Your task to perform on an android device: check out phone information Image 0: 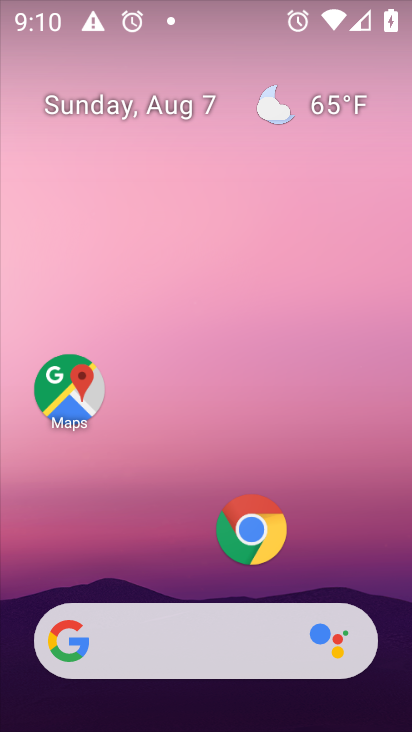
Step 0: drag from (134, 570) to (147, 0)
Your task to perform on an android device: check out phone information Image 1: 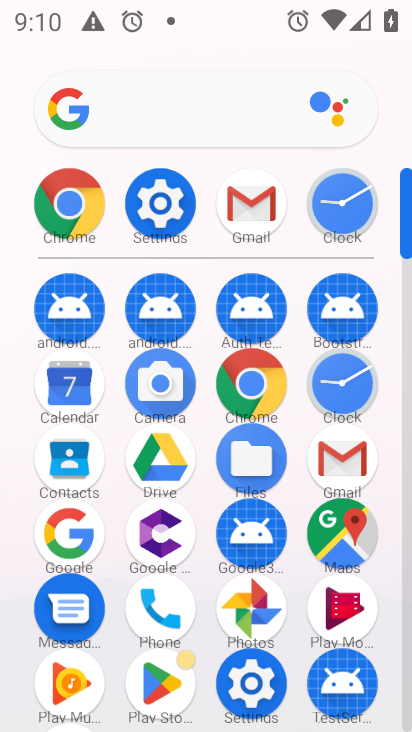
Step 1: click (166, 214)
Your task to perform on an android device: check out phone information Image 2: 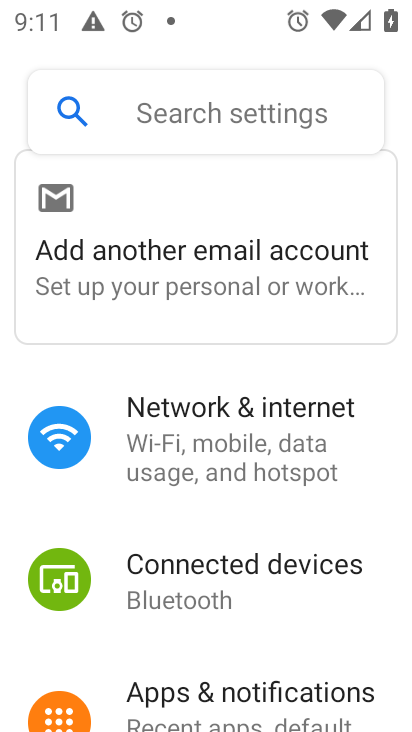
Step 2: drag from (231, 559) to (227, 399)
Your task to perform on an android device: check out phone information Image 3: 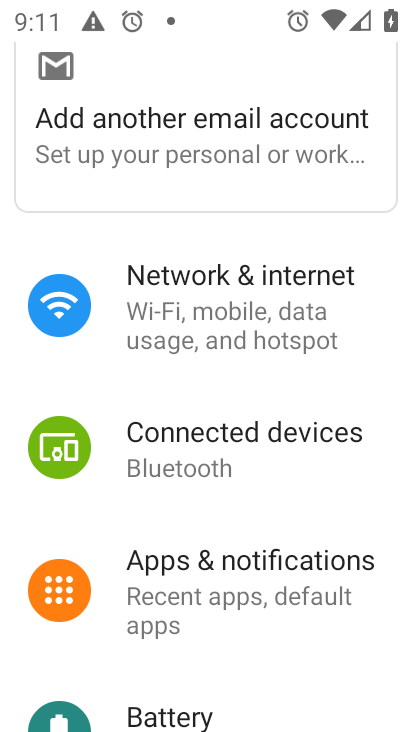
Step 3: drag from (221, 550) to (248, 235)
Your task to perform on an android device: check out phone information Image 4: 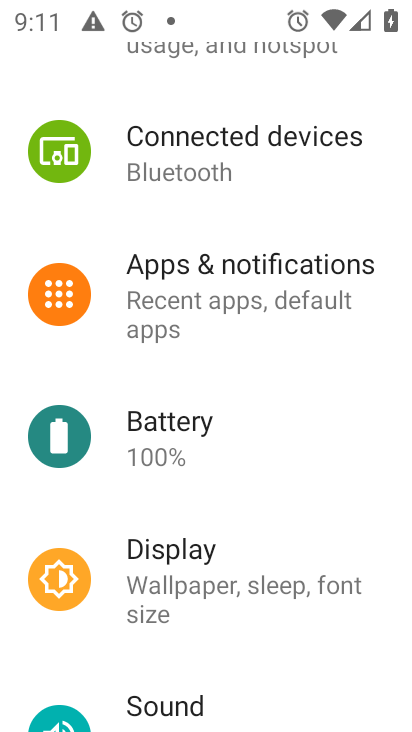
Step 4: drag from (226, 619) to (240, 228)
Your task to perform on an android device: check out phone information Image 5: 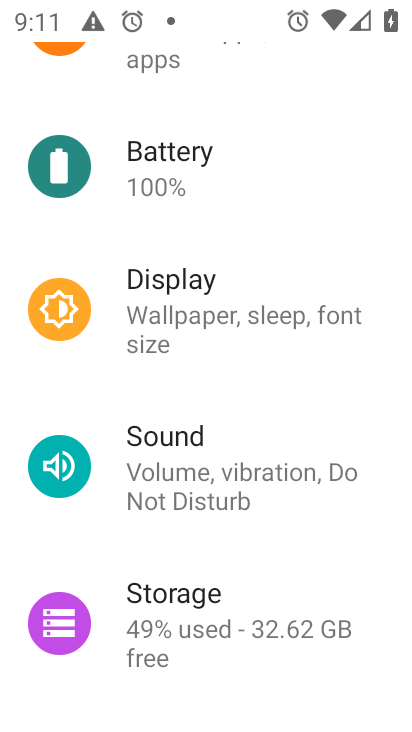
Step 5: drag from (199, 611) to (229, 248)
Your task to perform on an android device: check out phone information Image 6: 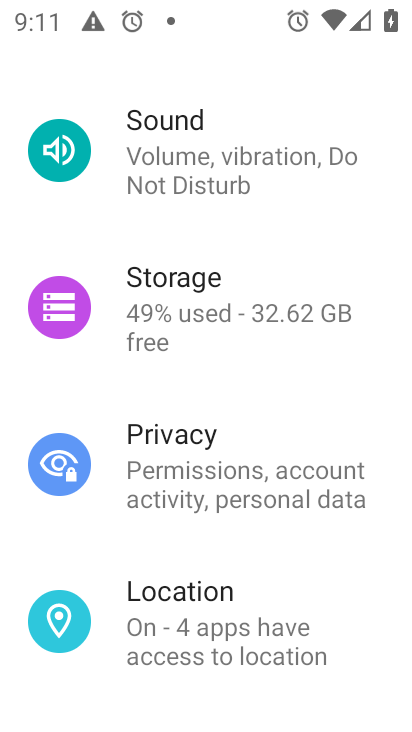
Step 6: drag from (211, 575) to (225, 23)
Your task to perform on an android device: check out phone information Image 7: 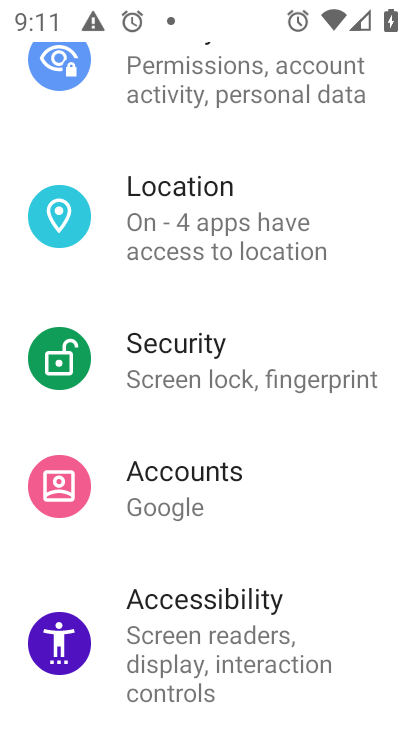
Step 7: drag from (198, 656) to (231, 103)
Your task to perform on an android device: check out phone information Image 8: 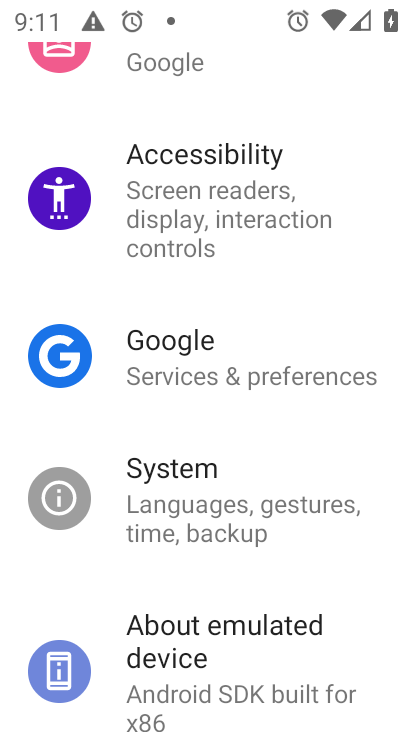
Step 8: drag from (199, 650) to (228, 383)
Your task to perform on an android device: check out phone information Image 9: 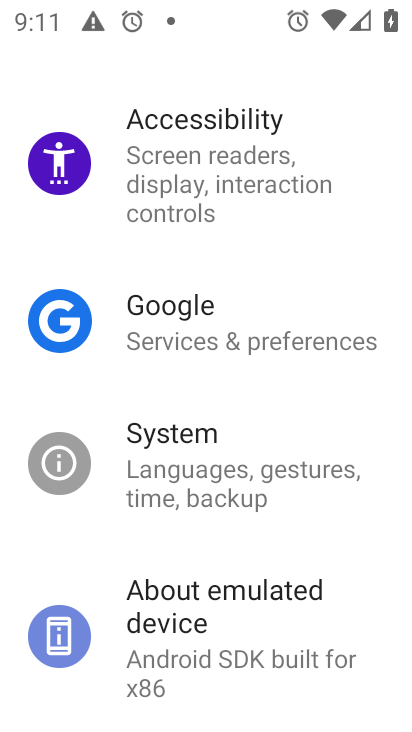
Step 9: click (169, 621)
Your task to perform on an android device: check out phone information Image 10: 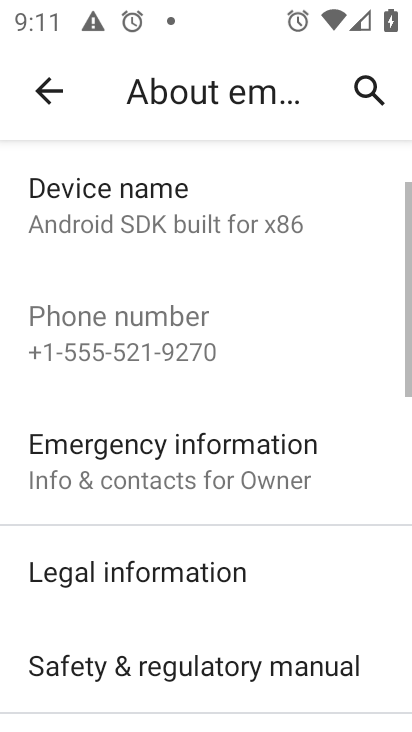
Step 10: task complete